Your task to perform on an android device: allow cookies in the chrome app Image 0: 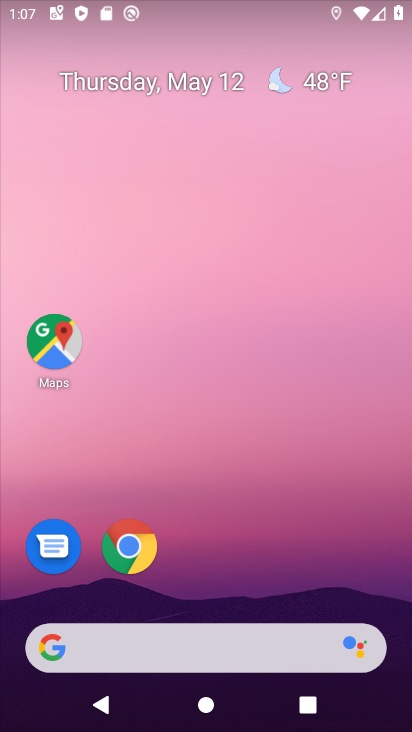
Step 0: drag from (127, 646) to (225, 265)
Your task to perform on an android device: allow cookies in the chrome app Image 1: 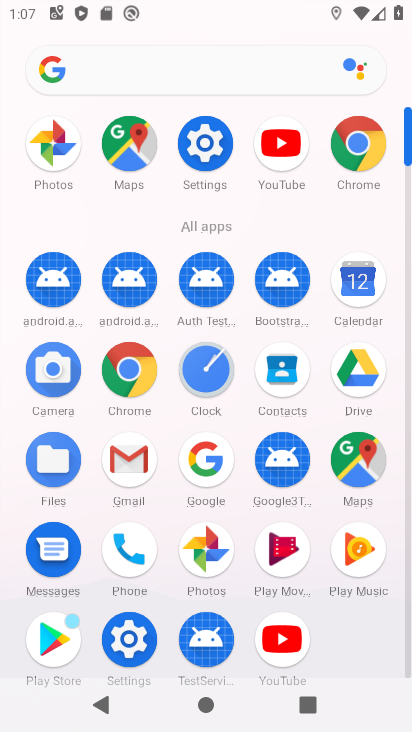
Step 1: click (343, 162)
Your task to perform on an android device: allow cookies in the chrome app Image 2: 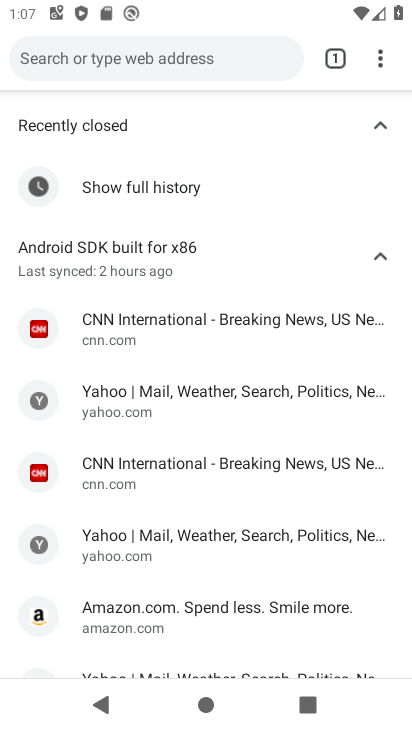
Step 2: drag from (378, 65) to (232, 477)
Your task to perform on an android device: allow cookies in the chrome app Image 3: 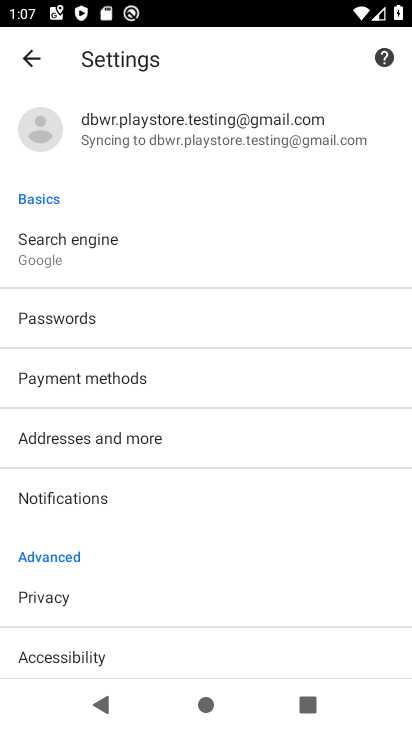
Step 3: drag from (146, 588) to (272, 226)
Your task to perform on an android device: allow cookies in the chrome app Image 4: 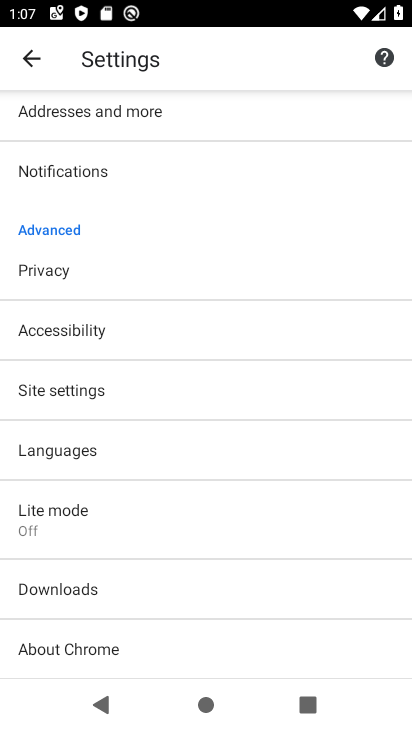
Step 4: click (108, 391)
Your task to perform on an android device: allow cookies in the chrome app Image 5: 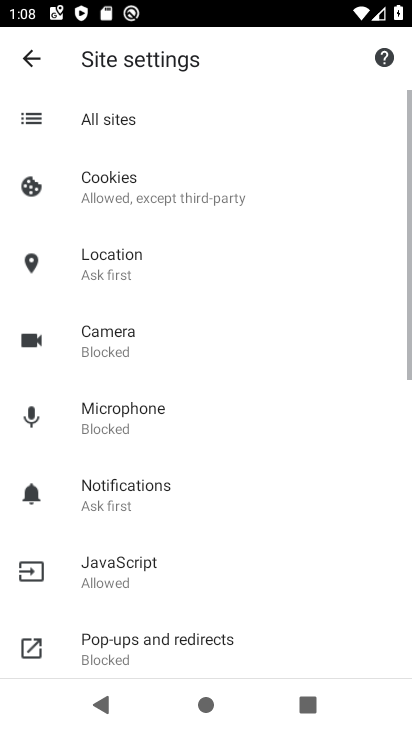
Step 5: click (109, 192)
Your task to perform on an android device: allow cookies in the chrome app Image 6: 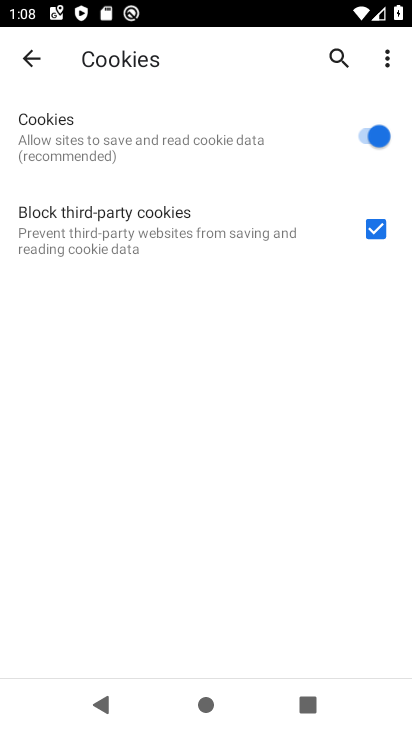
Step 6: task complete